Your task to perform on an android device: change your default location settings in chrome Image 0: 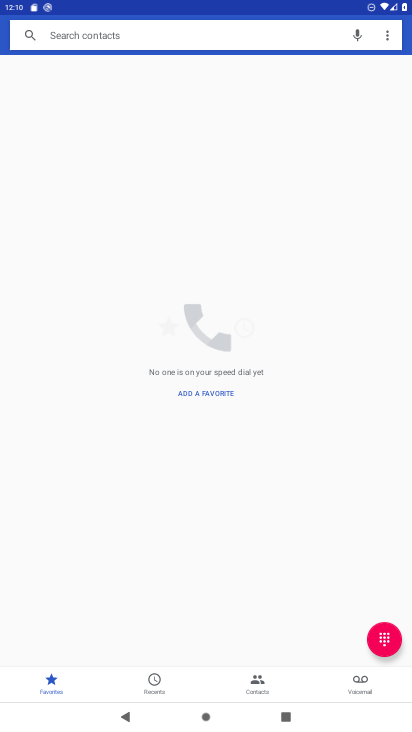
Step 0: press home button
Your task to perform on an android device: change your default location settings in chrome Image 1: 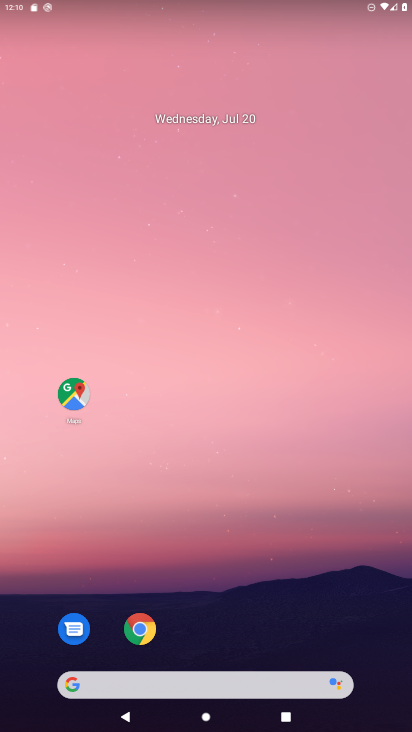
Step 1: click (141, 625)
Your task to perform on an android device: change your default location settings in chrome Image 2: 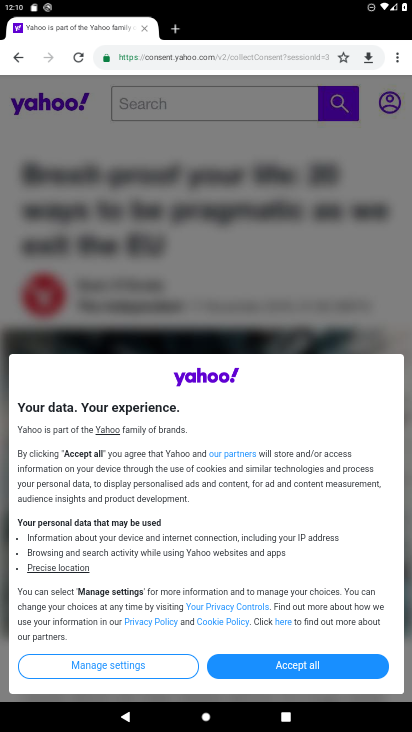
Step 2: click (398, 60)
Your task to perform on an android device: change your default location settings in chrome Image 3: 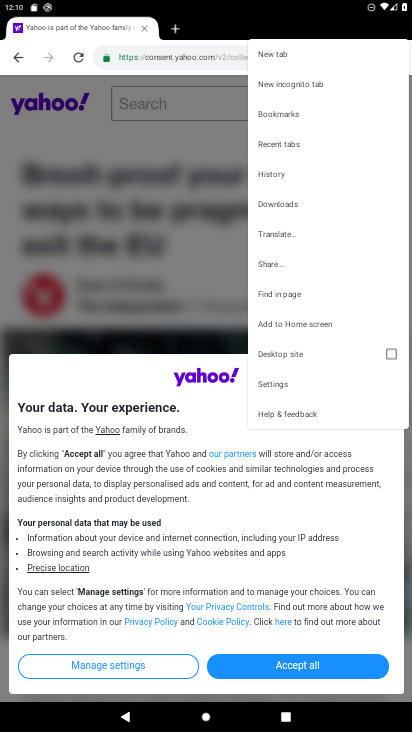
Step 3: click (271, 376)
Your task to perform on an android device: change your default location settings in chrome Image 4: 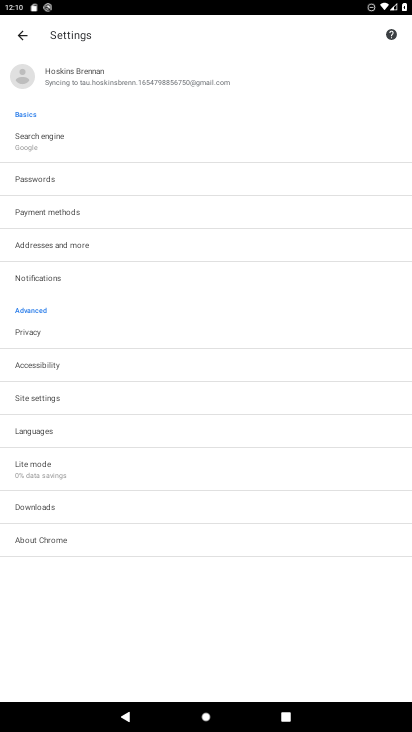
Step 4: click (52, 395)
Your task to perform on an android device: change your default location settings in chrome Image 5: 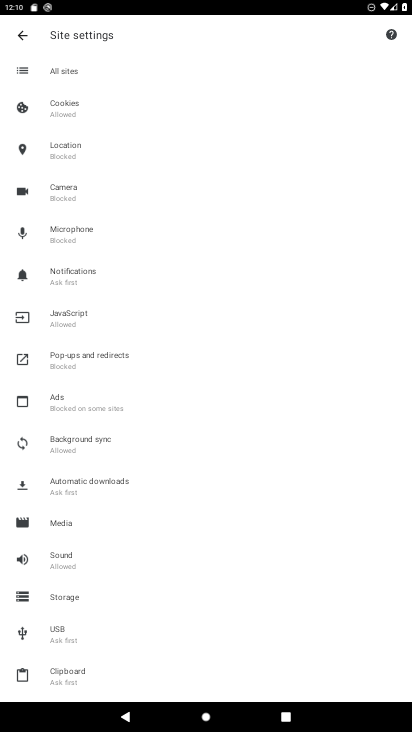
Step 5: click (63, 139)
Your task to perform on an android device: change your default location settings in chrome Image 6: 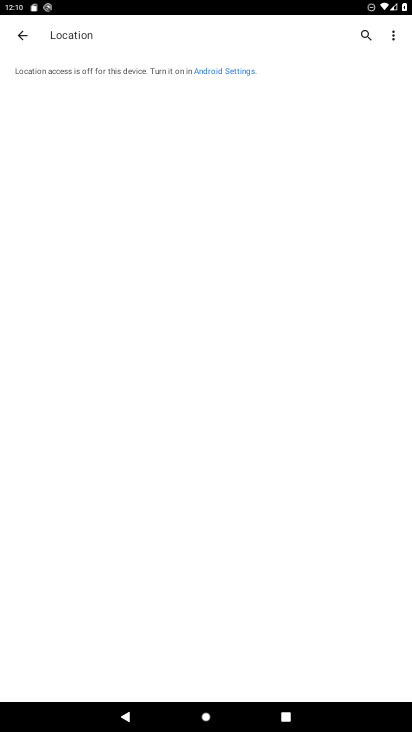
Step 6: click (236, 68)
Your task to perform on an android device: change your default location settings in chrome Image 7: 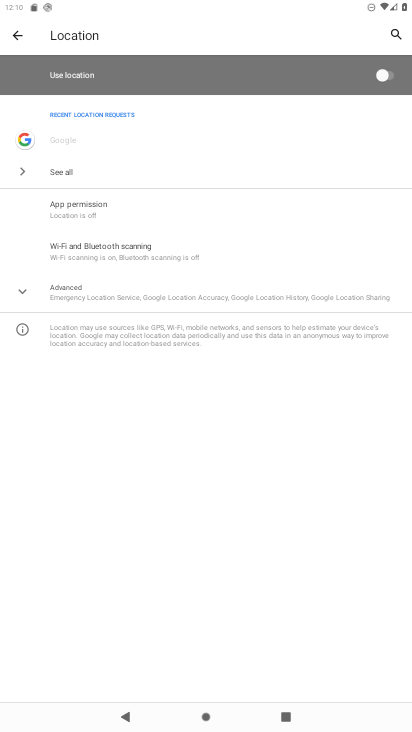
Step 7: click (387, 75)
Your task to perform on an android device: change your default location settings in chrome Image 8: 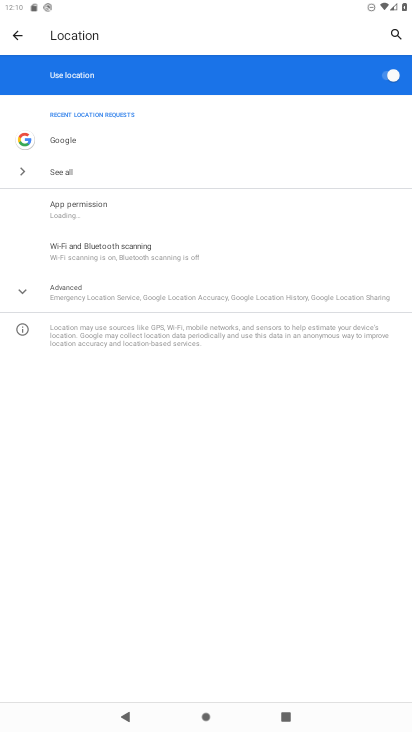
Step 8: task complete